Your task to perform on an android device: Go to Maps Image 0: 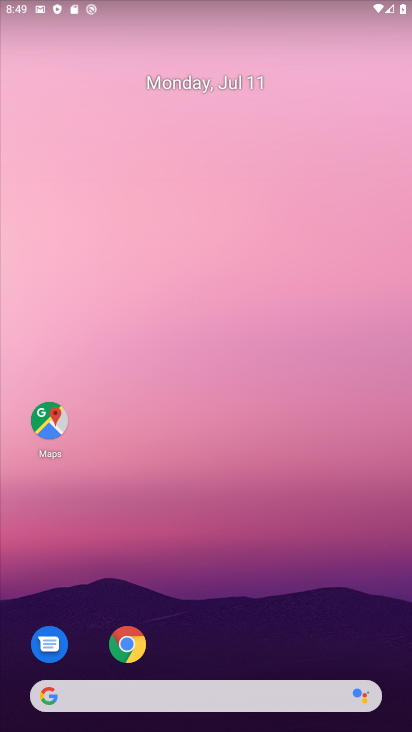
Step 0: click (41, 415)
Your task to perform on an android device: Go to Maps Image 1: 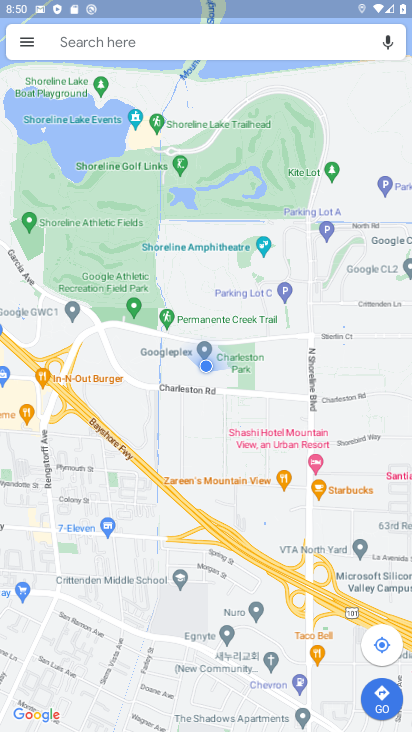
Step 1: task complete